Your task to perform on an android device: open chrome privacy settings Image 0: 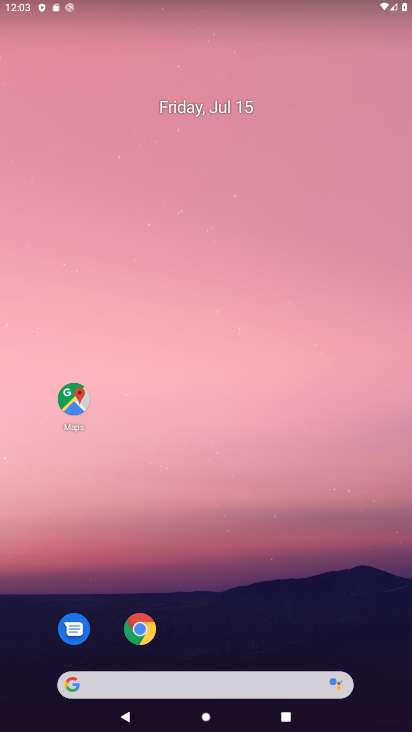
Step 0: drag from (261, 672) to (275, 74)
Your task to perform on an android device: open chrome privacy settings Image 1: 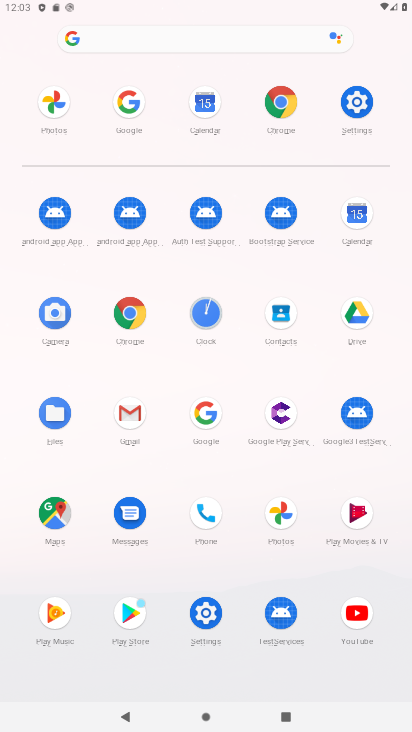
Step 1: click (289, 100)
Your task to perform on an android device: open chrome privacy settings Image 2: 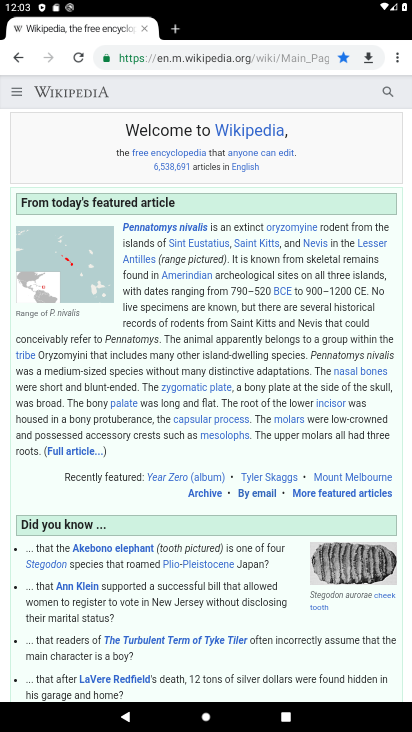
Step 2: drag from (392, 55) to (298, 405)
Your task to perform on an android device: open chrome privacy settings Image 3: 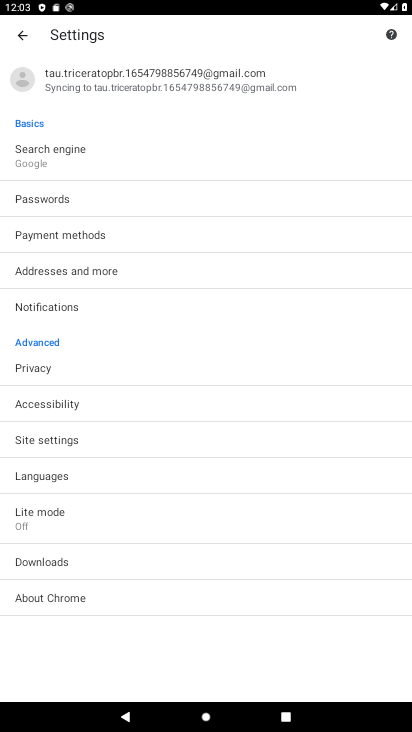
Step 3: click (30, 370)
Your task to perform on an android device: open chrome privacy settings Image 4: 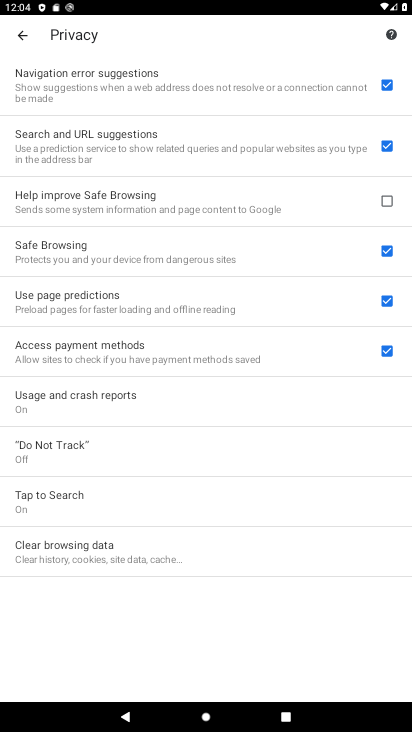
Step 4: task complete